Your task to perform on an android device: check data usage Image 0: 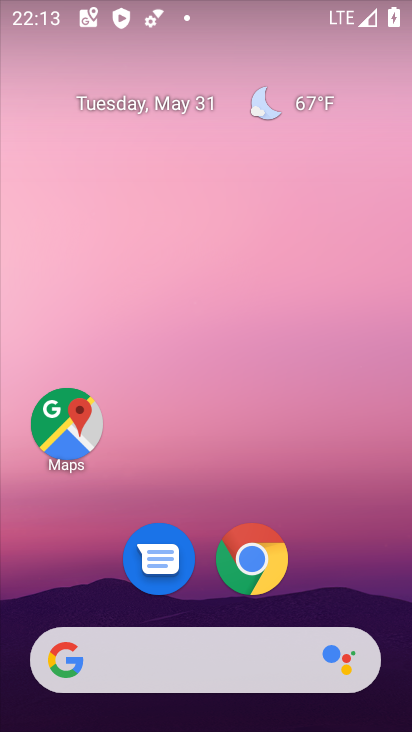
Step 0: drag from (319, 583) to (342, 69)
Your task to perform on an android device: check data usage Image 1: 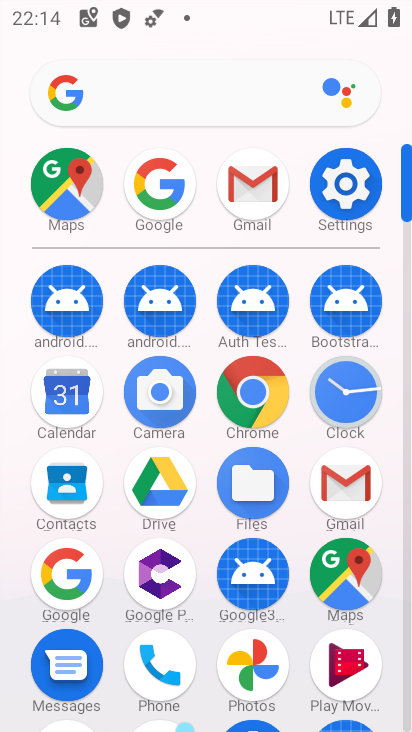
Step 1: click (347, 181)
Your task to perform on an android device: check data usage Image 2: 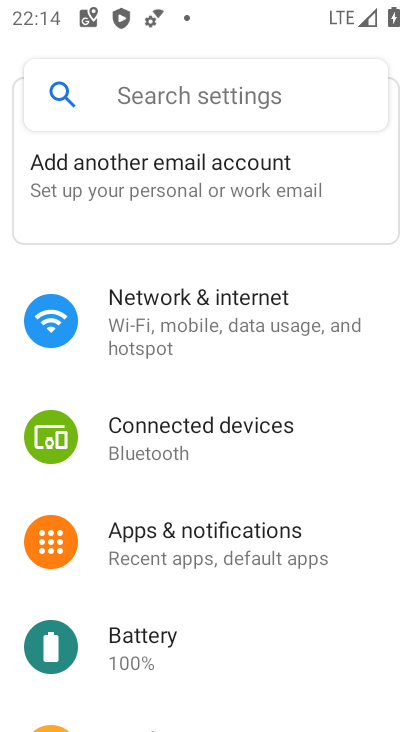
Step 2: click (152, 330)
Your task to perform on an android device: check data usage Image 3: 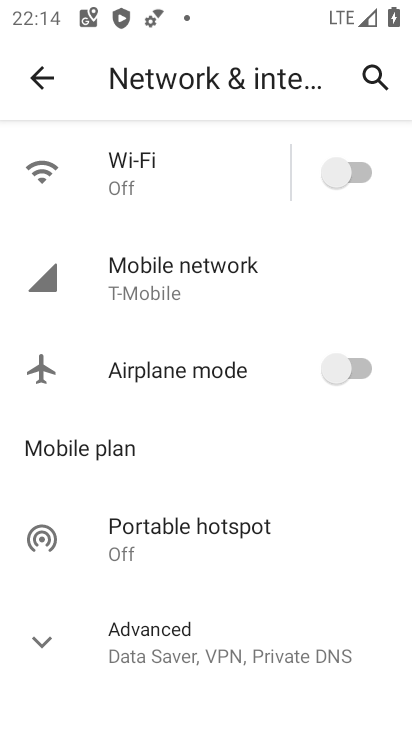
Step 3: click (146, 286)
Your task to perform on an android device: check data usage Image 4: 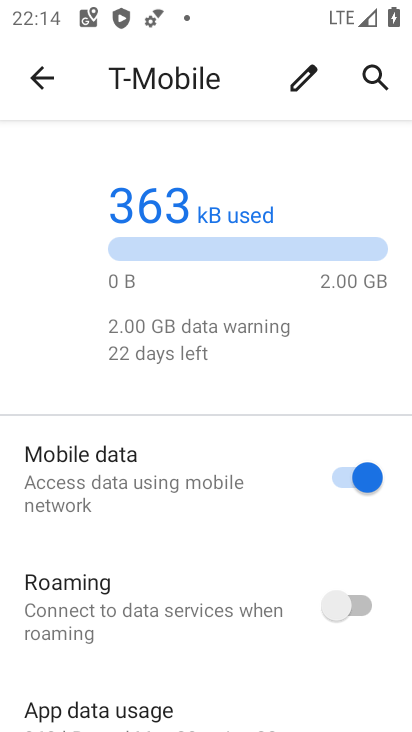
Step 4: task complete